Your task to perform on an android device: turn on priority inbox in the gmail app Image 0: 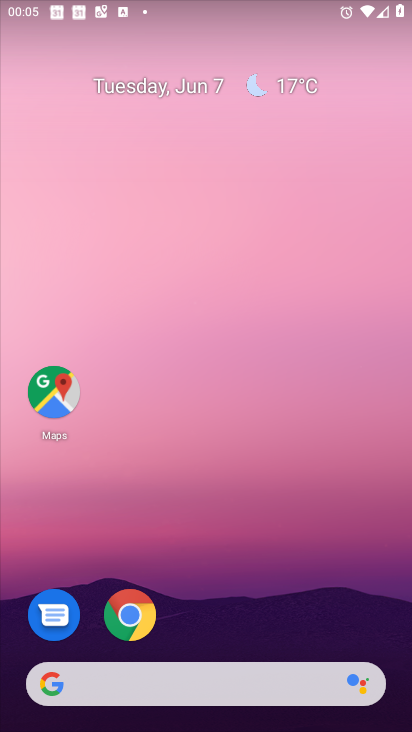
Step 0: drag from (403, 659) to (372, 219)
Your task to perform on an android device: turn on priority inbox in the gmail app Image 1: 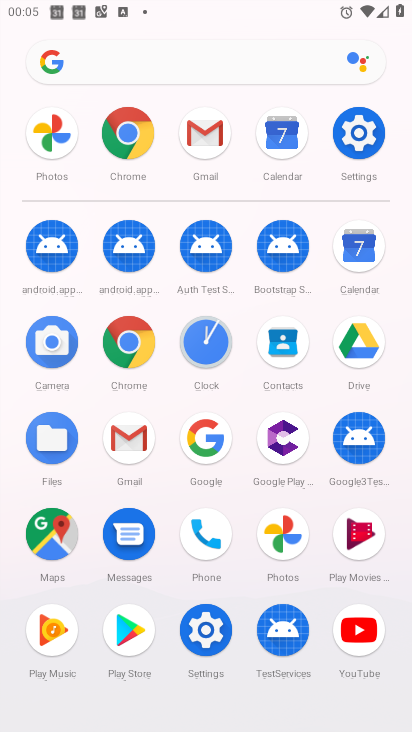
Step 1: click (128, 453)
Your task to perform on an android device: turn on priority inbox in the gmail app Image 2: 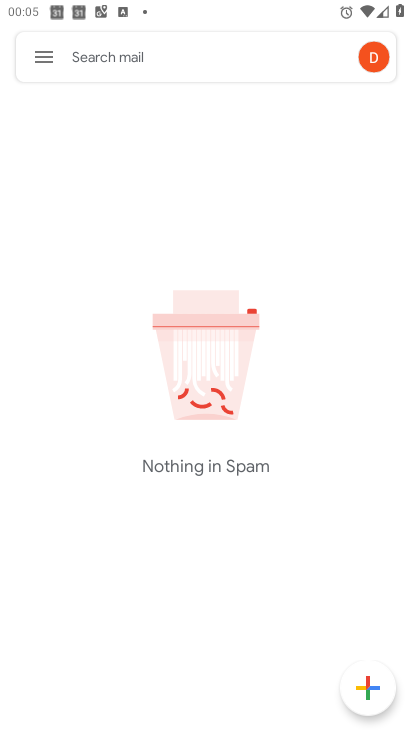
Step 2: click (51, 51)
Your task to perform on an android device: turn on priority inbox in the gmail app Image 3: 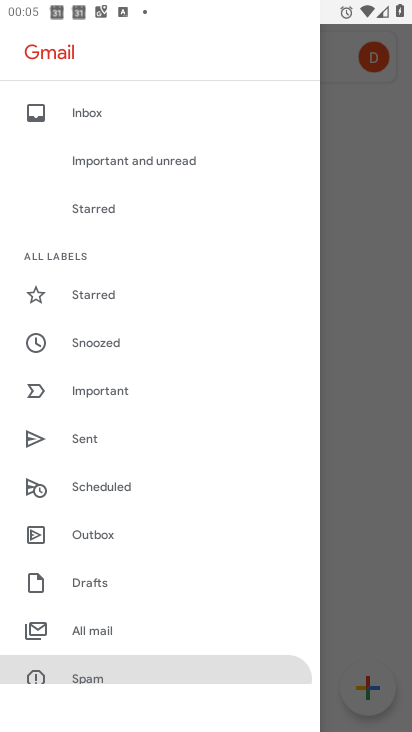
Step 3: drag from (154, 633) to (270, 168)
Your task to perform on an android device: turn on priority inbox in the gmail app Image 4: 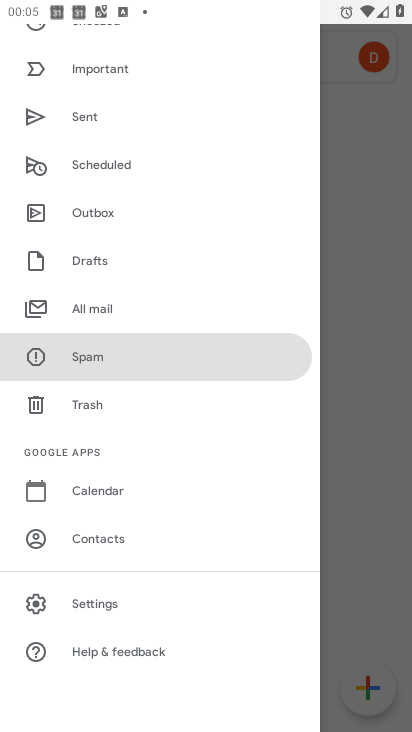
Step 4: click (87, 597)
Your task to perform on an android device: turn on priority inbox in the gmail app Image 5: 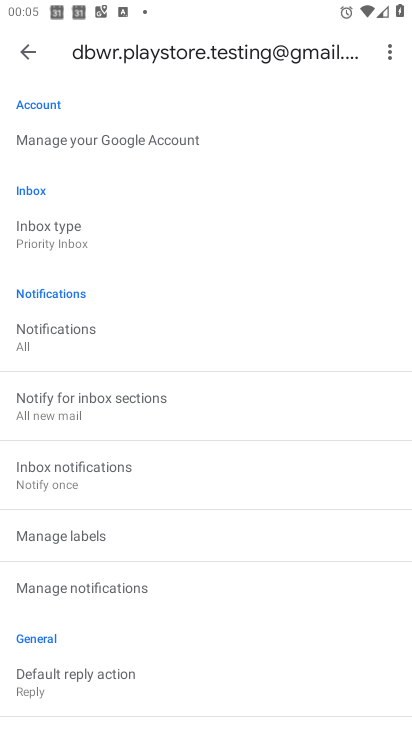
Step 5: click (62, 242)
Your task to perform on an android device: turn on priority inbox in the gmail app Image 6: 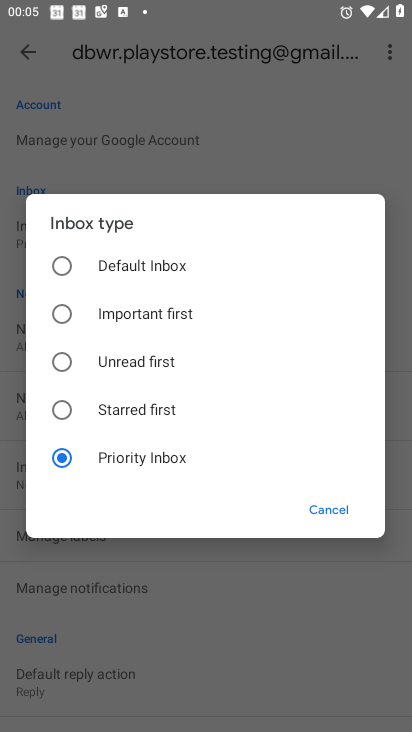
Step 6: task complete